Your task to perform on an android device: open chrome and create a bookmark for the current page Image 0: 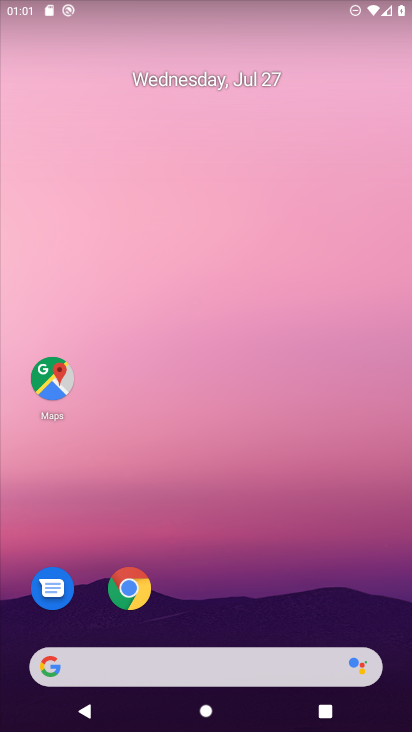
Step 0: click (137, 588)
Your task to perform on an android device: open chrome and create a bookmark for the current page Image 1: 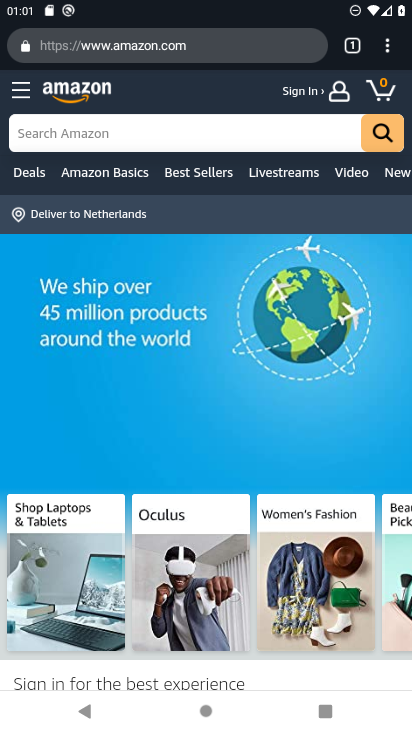
Step 1: click (379, 47)
Your task to perform on an android device: open chrome and create a bookmark for the current page Image 2: 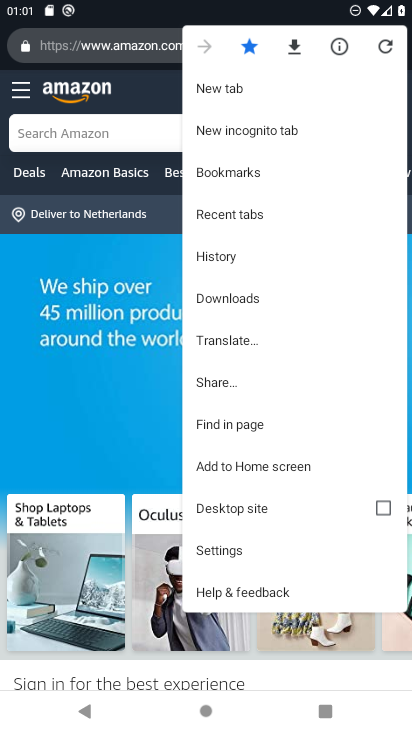
Step 2: click (234, 170)
Your task to perform on an android device: open chrome and create a bookmark for the current page Image 3: 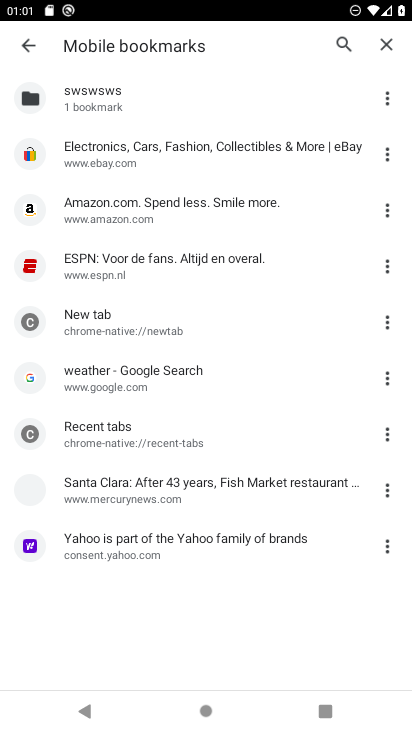
Step 3: task complete